Your task to perform on an android device: Go to Google Image 0: 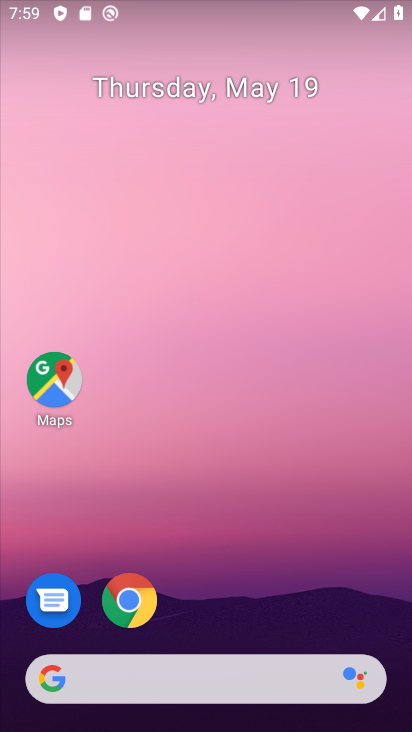
Step 0: drag from (261, 608) to (277, 26)
Your task to perform on an android device: Go to Google Image 1: 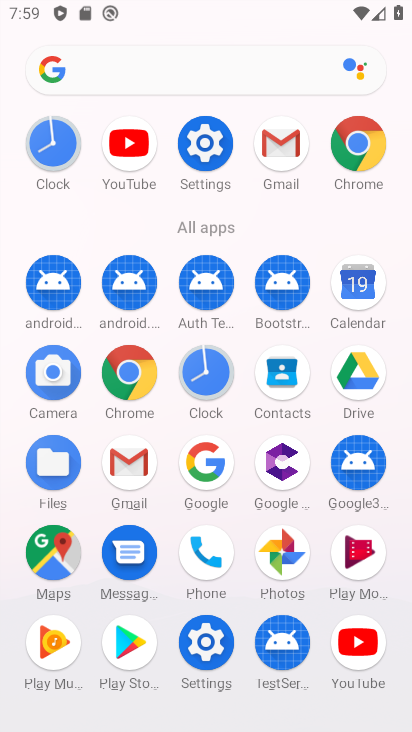
Step 1: click (352, 131)
Your task to perform on an android device: Go to Google Image 2: 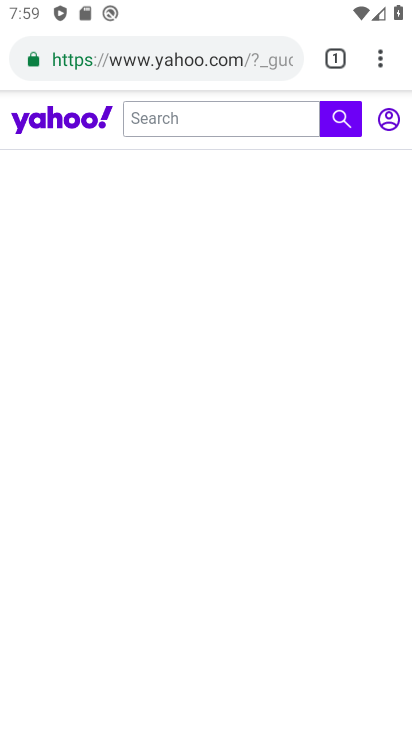
Step 2: click (197, 59)
Your task to perform on an android device: Go to Google Image 3: 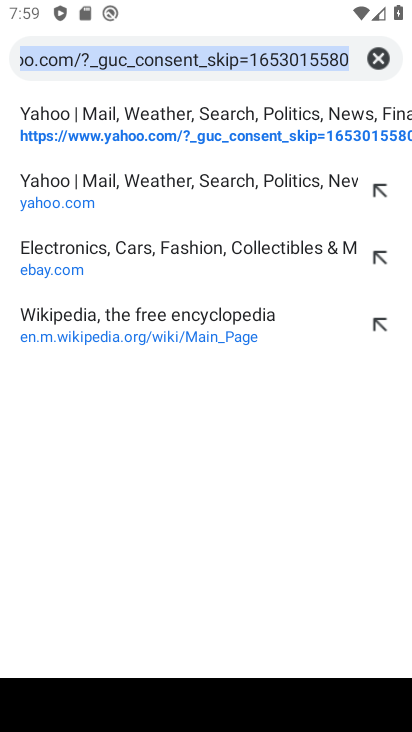
Step 3: type "google.com"
Your task to perform on an android device: Go to Google Image 4: 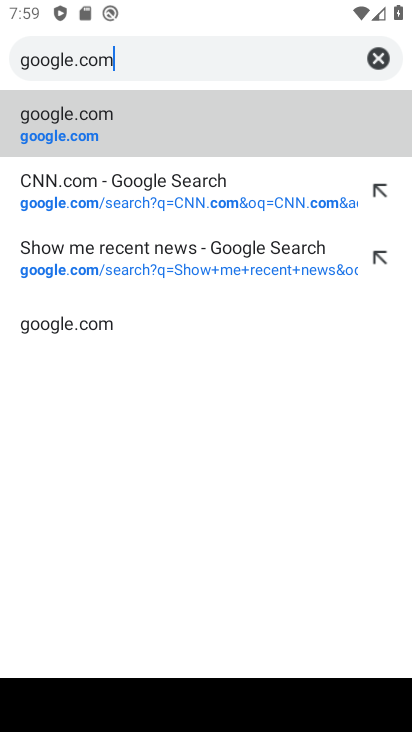
Step 4: click (147, 135)
Your task to perform on an android device: Go to Google Image 5: 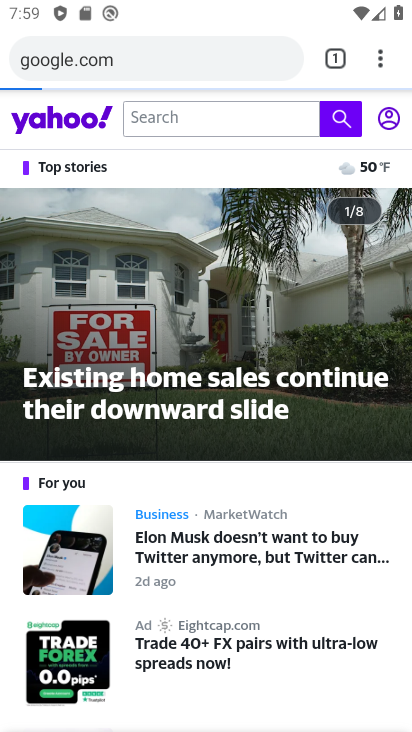
Step 5: task complete